Your task to perform on an android device: Open Android settings Image 0: 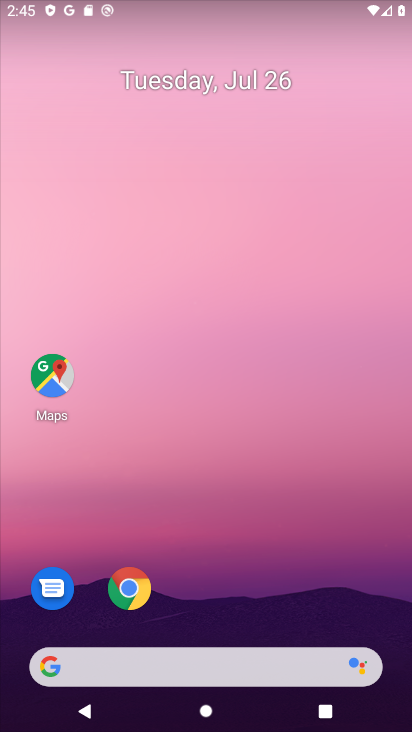
Step 0: drag from (235, 611) to (226, 189)
Your task to perform on an android device: Open Android settings Image 1: 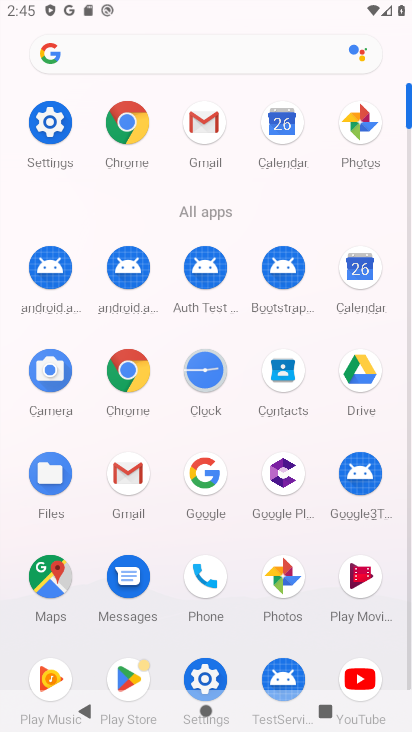
Step 1: click (44, 118)
Your task to perform on an android device: Open Android settings Image 2: 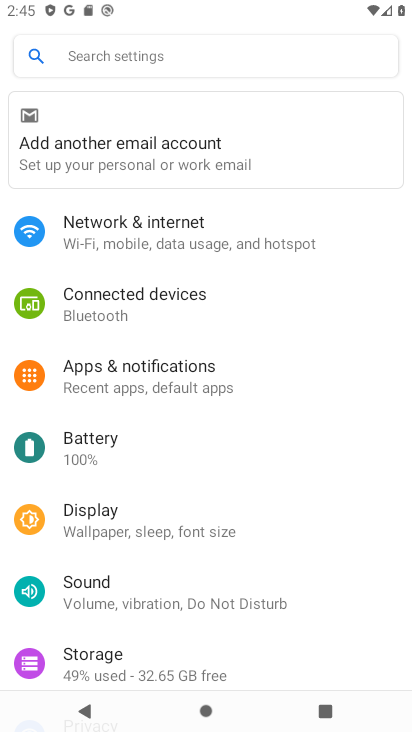
Step 2: task complete